Your task to perform on an android device: find photos in the google photos app Image 0: 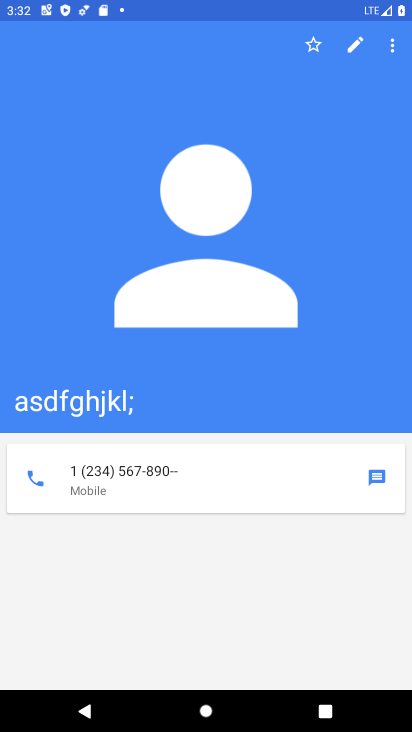
Step 0: press home button
Your task to perform on an android device: find photos in the google photos app Image 1: 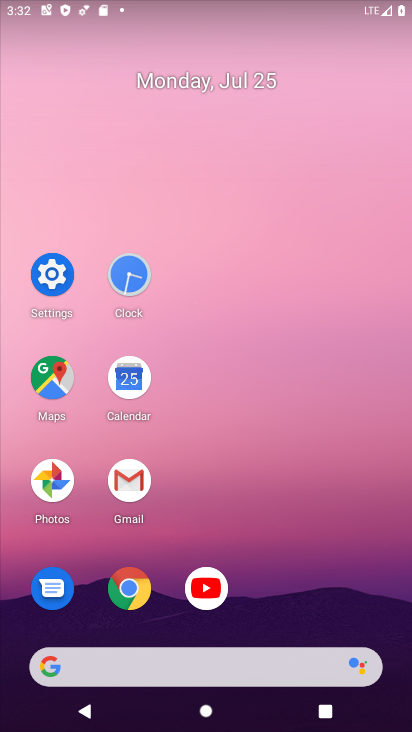
Step 1: click (51, 478)
Your task to perform on an android device: find photos in the google photos app Image 2: 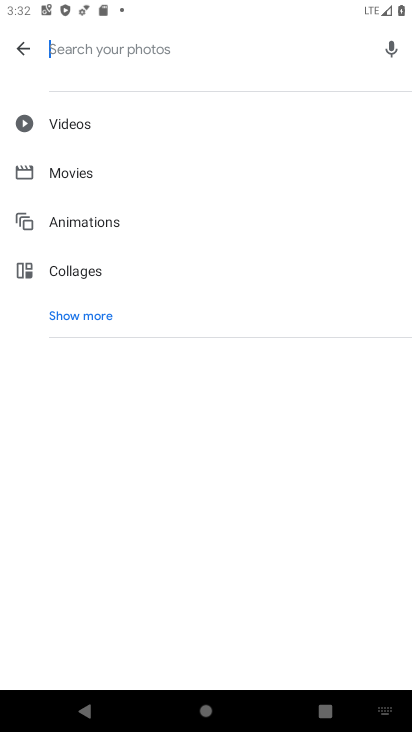
Step 2: click (121, 59)
Your task to perform on an android device: find photos in the google photos app Image 3: 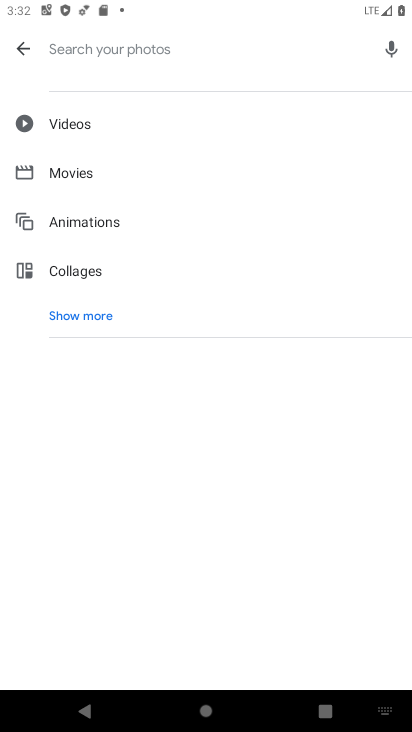
Step 3: task complete